Your task to perform on an android device: toggle notification dots Image 0: 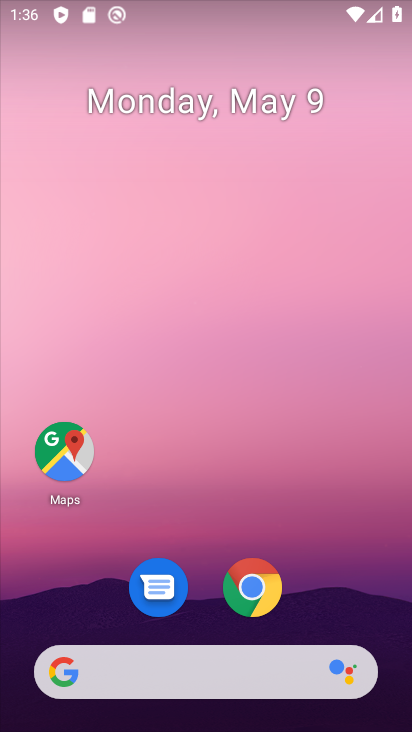
Step 0: drag from (218, 409) to (256, 118)
Your task to perform on an android device: toggle notification dots Image 1: 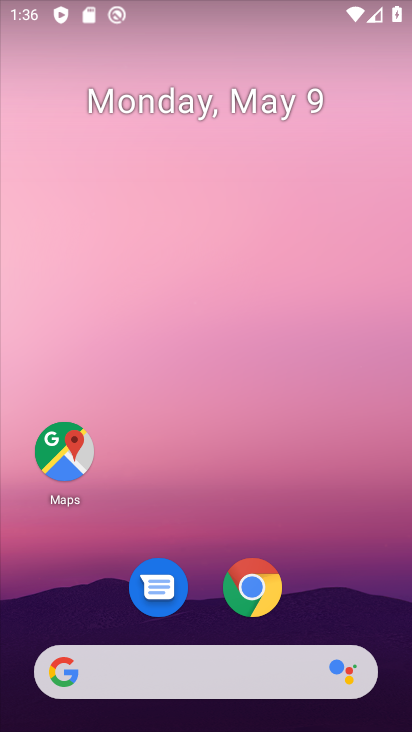
Step 1: drag from (200, 614) to (287, 76)
Your task to perform on an android device: toggle notification dots Image 2: 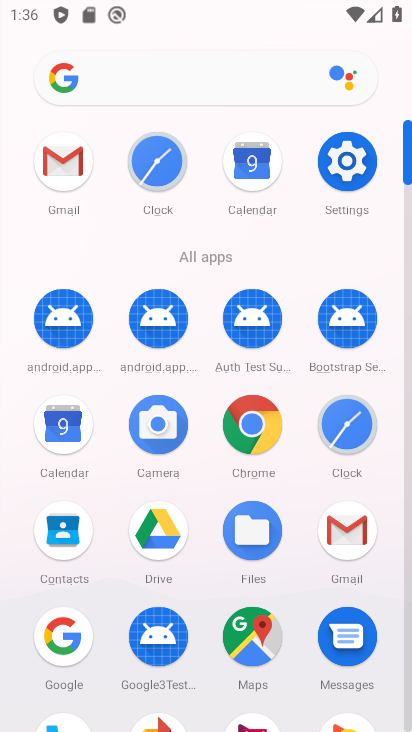
Step 2: click (345, 168)
Your task to perform on an android device: toggle notification dots Image 3: 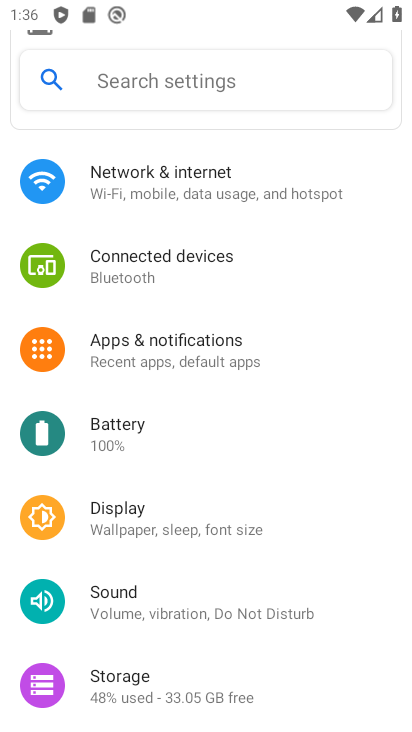
Step 3: click (177, 346)
Your task to perform on an android device: toggle notification dots Image 4: 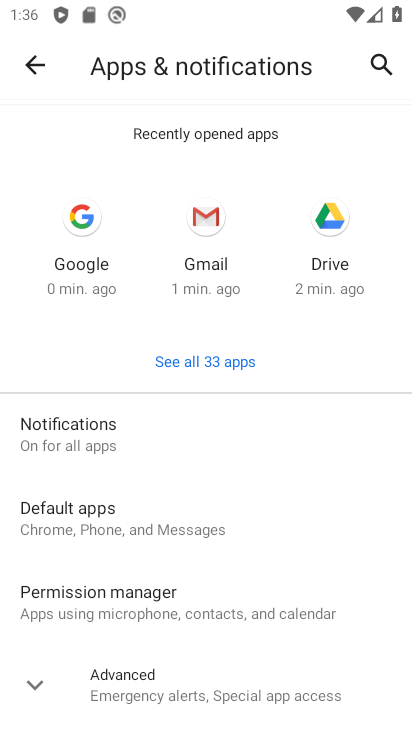
Step 4: click (136, 447)
Your task to perform on an android device: toggle notification dots Image 5: 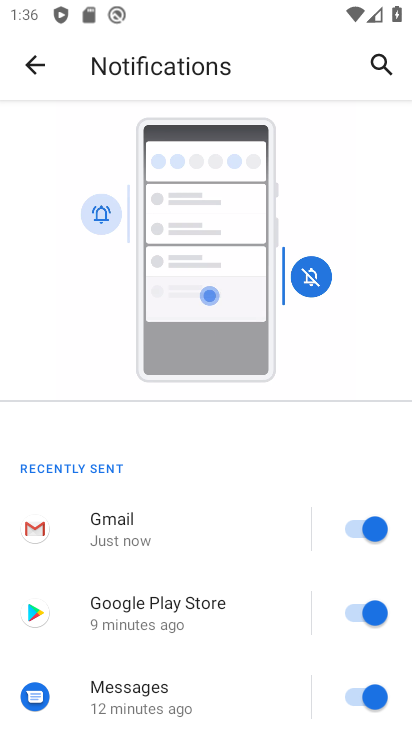
Step 5: drag from (135, 682) to (222, 246)
Your task to perform on an android device: toggle notification dots Image 6: 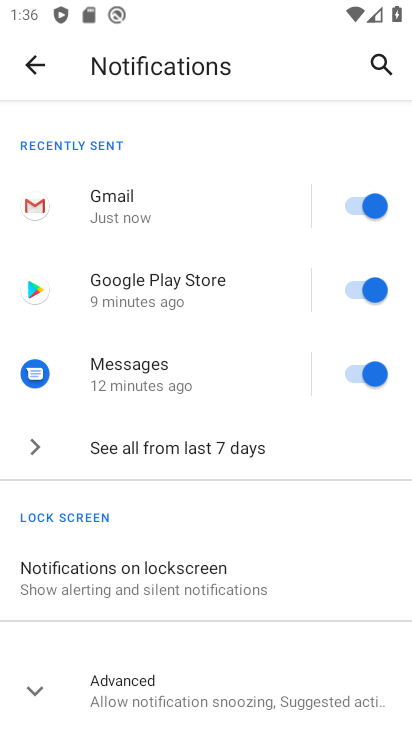
Step 6: click (119, 674)
Your task to perform on an android device: toggle notification dots Image 7: 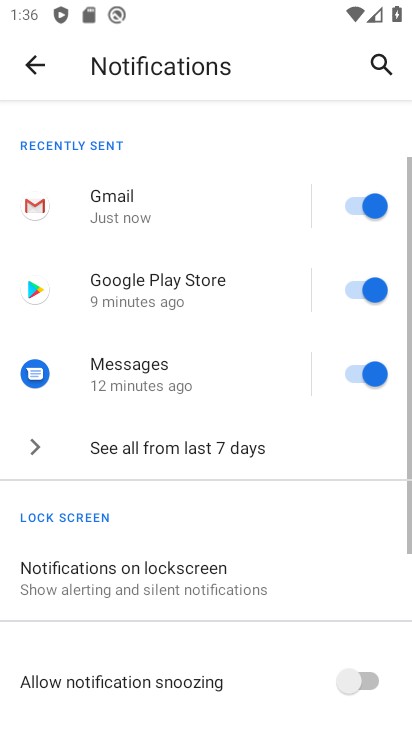
Step 7: drag from (192, 567) to (220, 131)
Your task to perform on an android device: toggle notification dots Image 8: 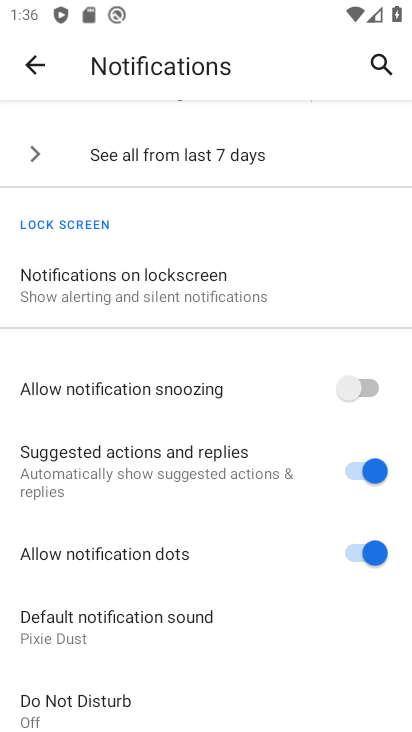
Step 8: click (352, 550)
Your task to perform on an android device: toggle notification dots Image 9: 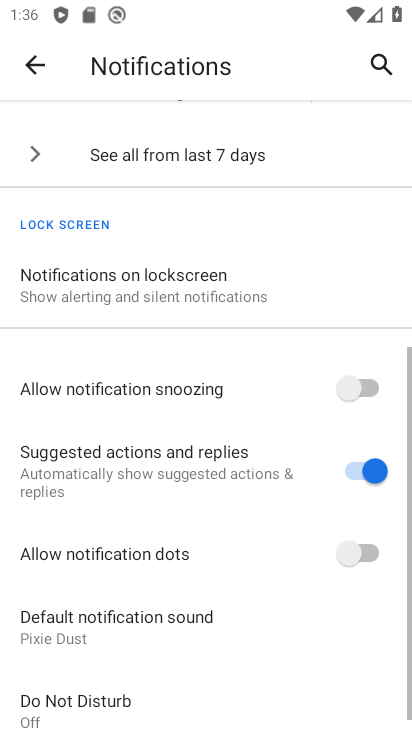
Step 9: task complete